Your task to perform on an android device: turn on sleep mode Image 0: 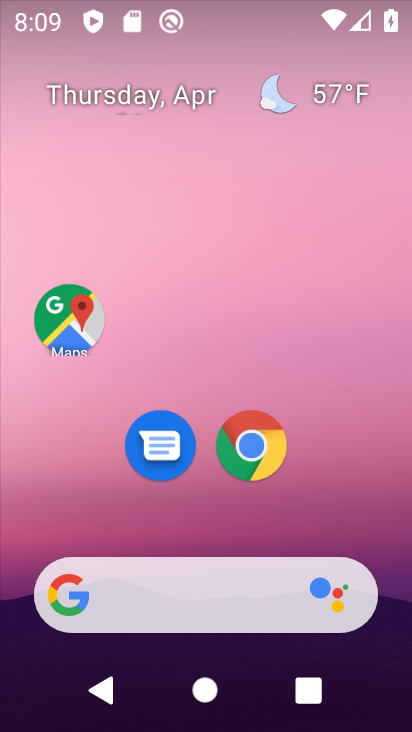
Step 0: drag from (355, 532) to (360, 1)
Your task to perform on an android device: turn on sleep mode Image 1: 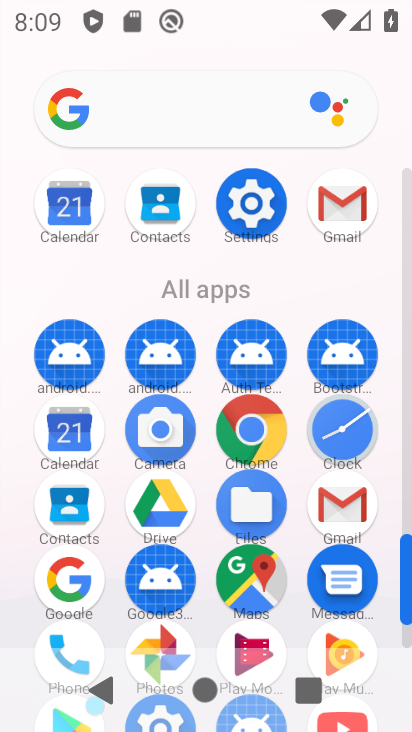
Step 1: click (245, 213)
Your task to perform on an android device: turn on sleep mode Image 2: 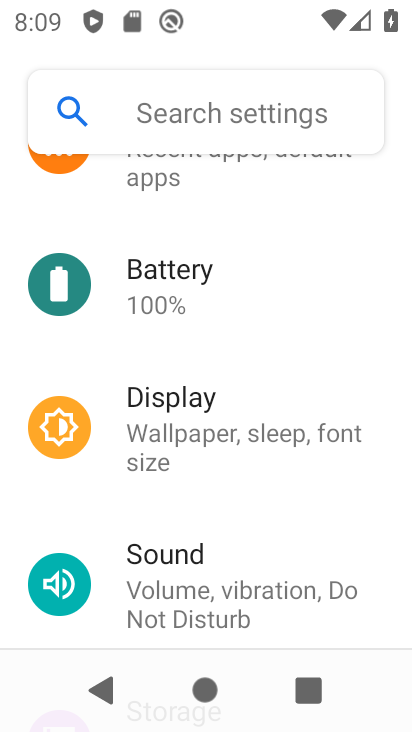
Step 2: click (163, 437)
Your task to perform on an android device: turn on sleep mode Image 3: 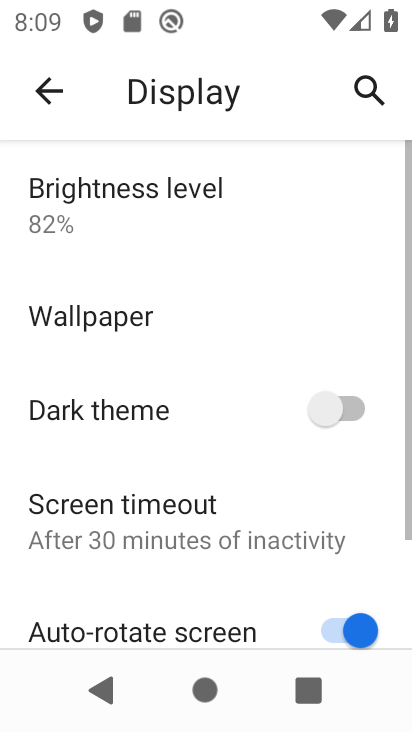
Step 3: drag from (212, 448) to (207, 167)
Your task to perform on an android device: turn on sleep mode Image 4: 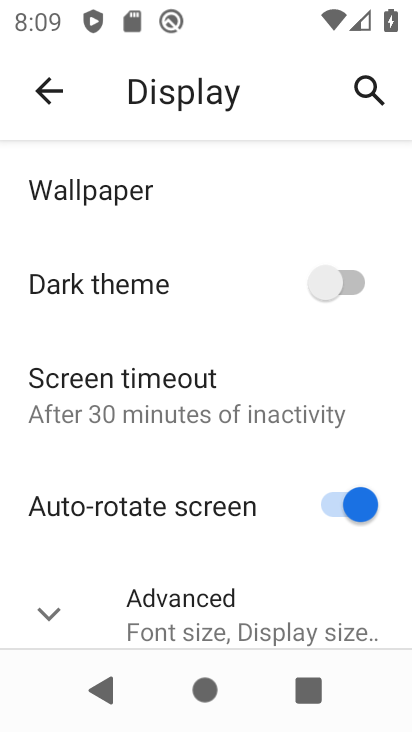
Step 4: click (47, 623)
Your task to perform on an android device: turn on sleep mode Image 5: 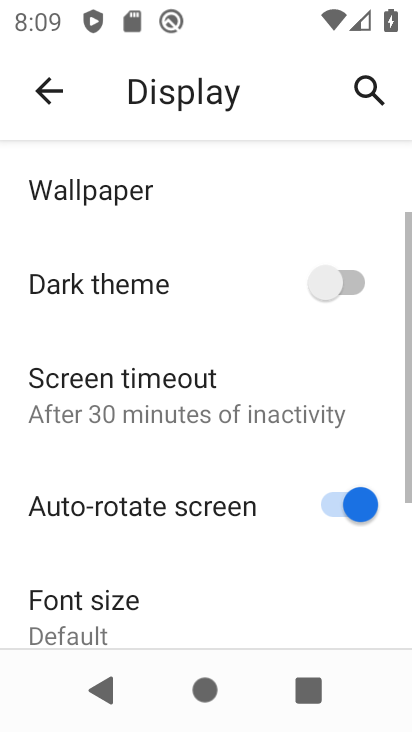
Step 5: task complete